Your task to perform on an android device: change alarm snooze length Image 0: 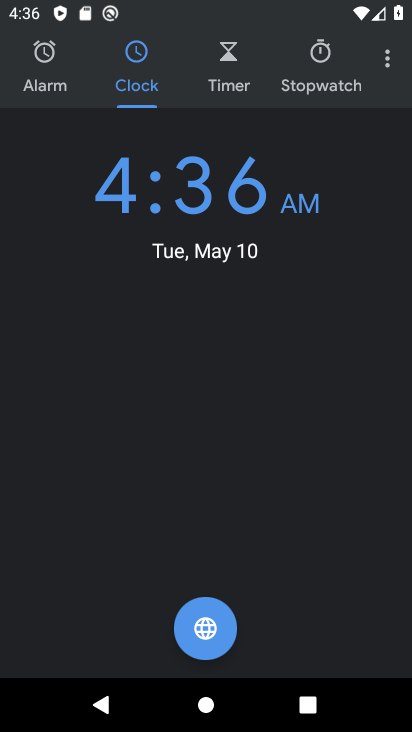
Step 0: click (392, 61)
Your task to perform on an android device: change alarm snooze length Image 1: 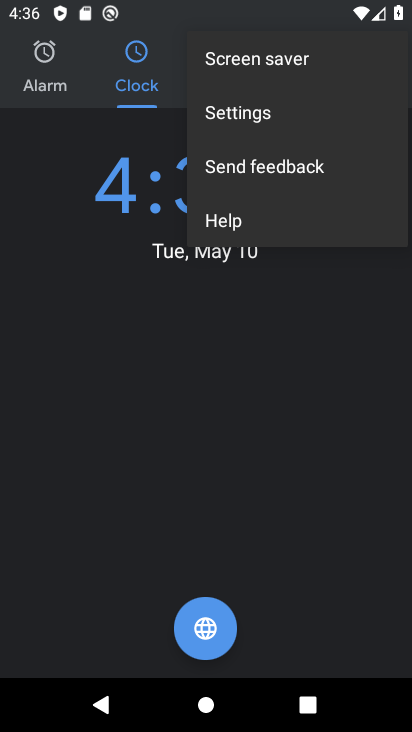
Step 1: click (324, 117)
Your task to perform on an android device: change alarm snooze length Image 2: 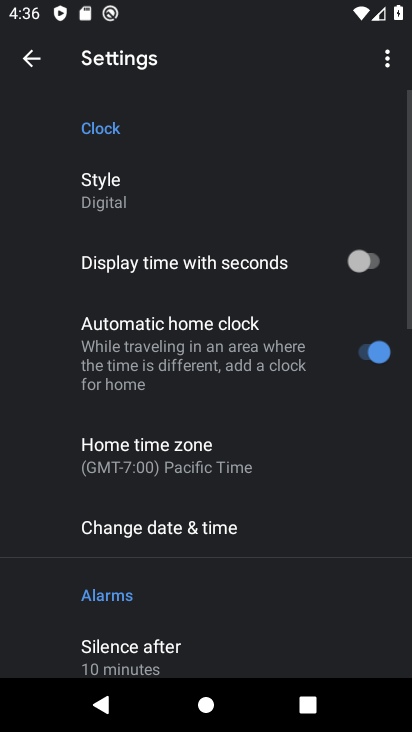
Step 2: drag from (245, 591) to (302, 272)
Your task to perform on an android device: change alarm snooze length Image 3: 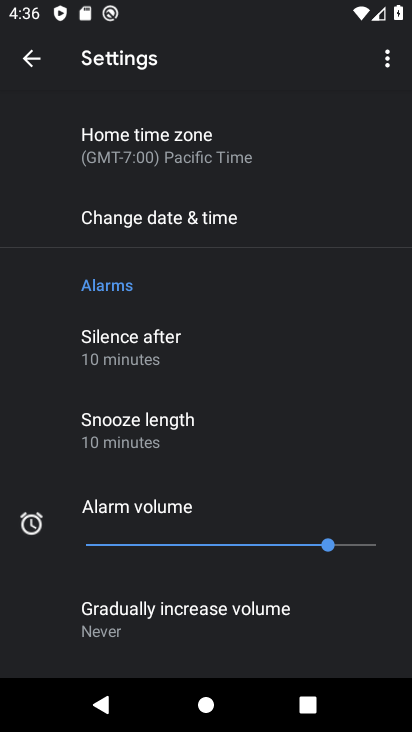
Step 3: click (217, 454)
Your task to perform on an android device: change alarm snooze length Image 4: 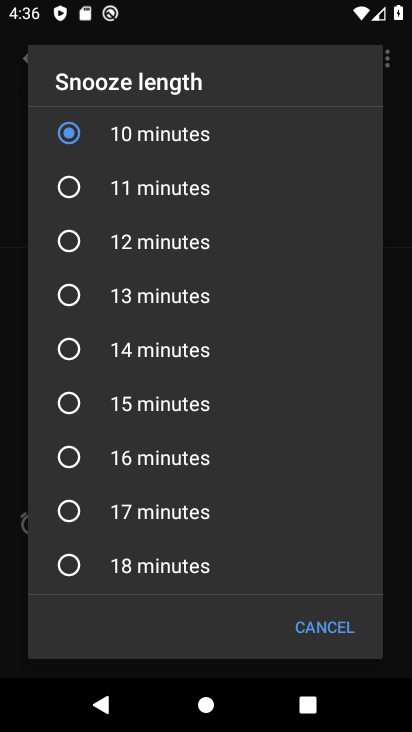
Step 4: click (193, 543)
Your task to perform on an android device: change alarm snooze length Image 5: 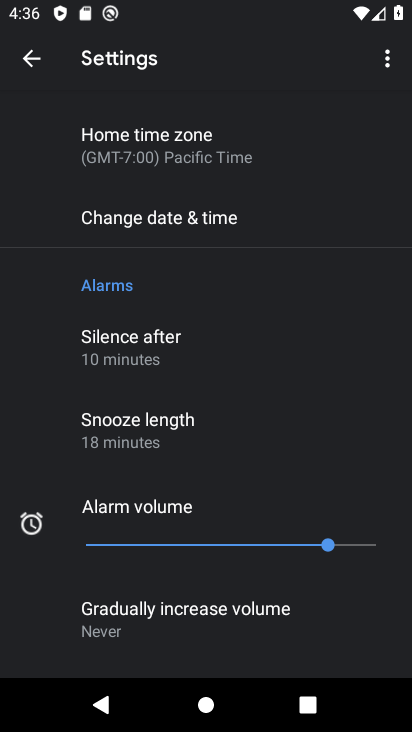
Step 5: task complete